Your task to perform on an android device: Open the map Image 0: 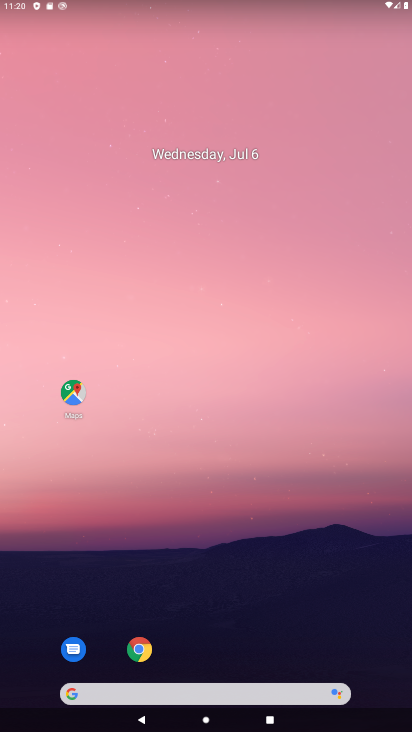
Step 0: drag from (49, 694) to (401, 341)
Your task to perform on an android device: Open the map Image 1: 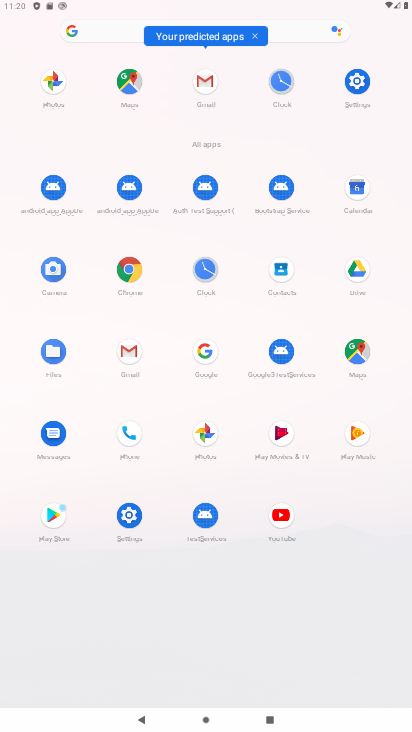
Step 1: click (364, 340)
Your task to perform on an android device: Open the map Image 2: 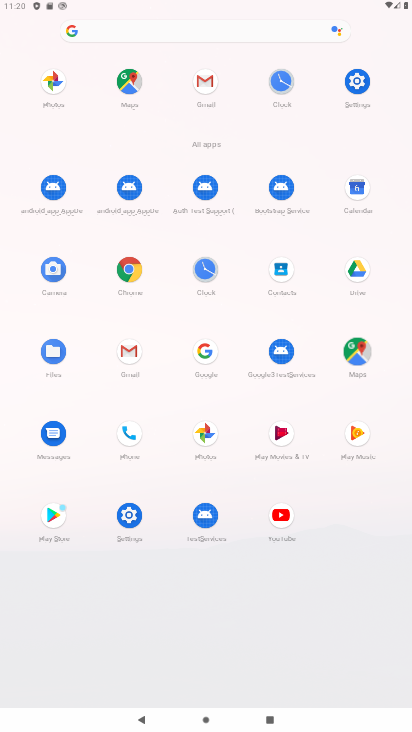
Step 2: click (357, 352)
Your task to perform on an android device: Open the map Image 3: 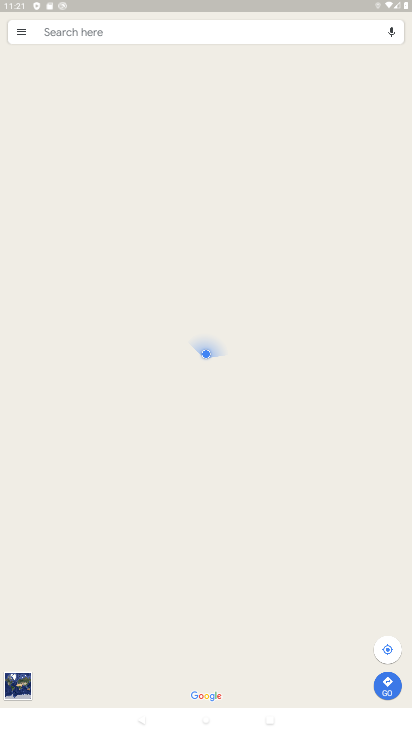
Step 3: task complete